Your task to perform on an android device: Open Google Chrome and open the bookmarks view Image 0: 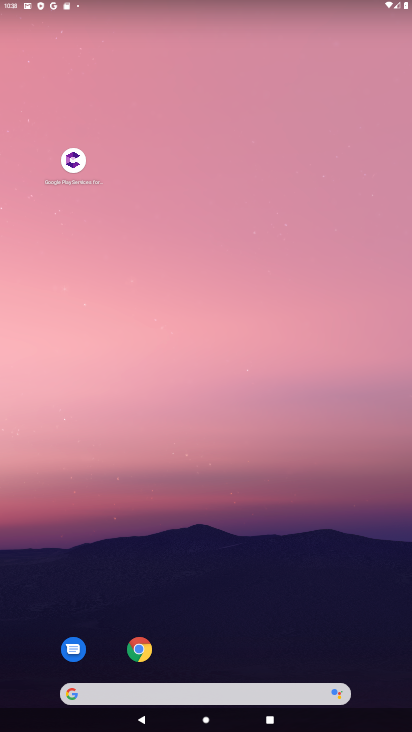
Step 0: drag from (327, 689) to (271, 249)
Your task to perform on an android device: Open Google Chrome and open the bookmarks view Image 1: 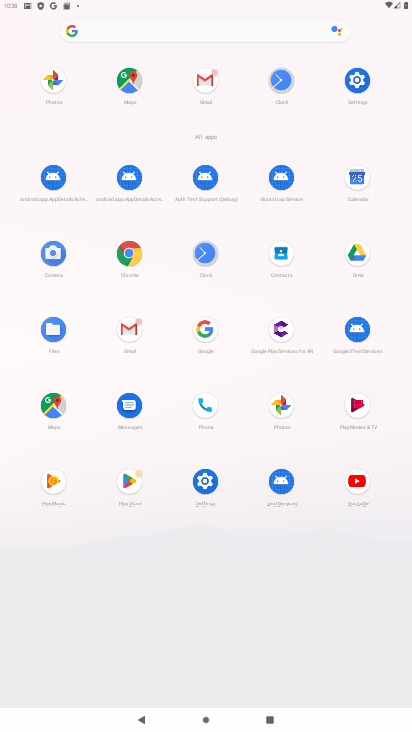
Step 1: click (127, 254)
Your task to perform on an android device: Open Google Chrome and open the bookmarks view Image 2: 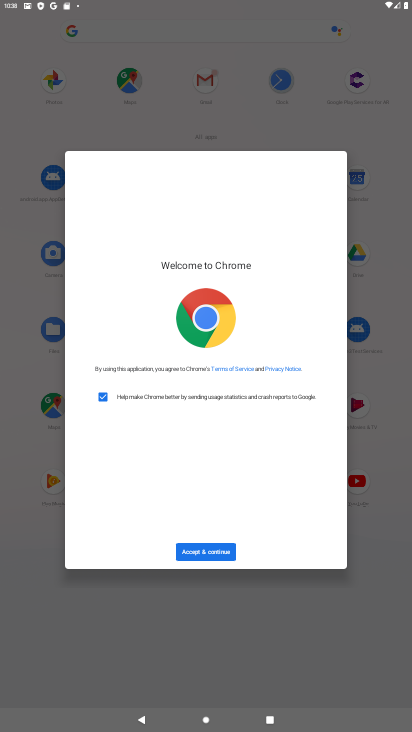
Step 2: click (235, 549)
Your task to perform on an android device: Open Google Chrome and open the bookmarks view Image 3: 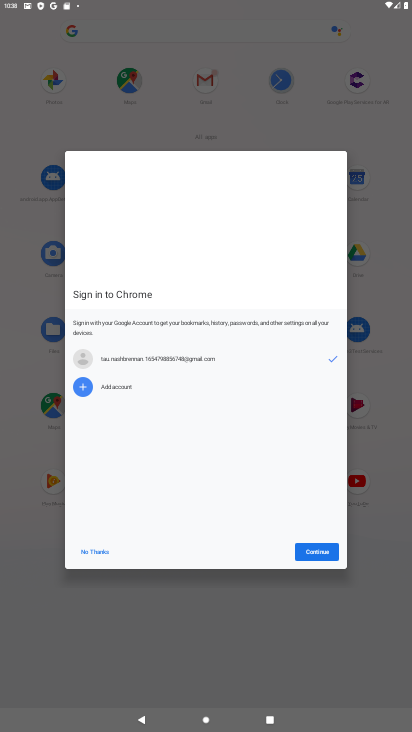
Step 3: click (86, 550)
Your task to perform on an android device: Open Google Chrome and open the bookmarks view Image 4: 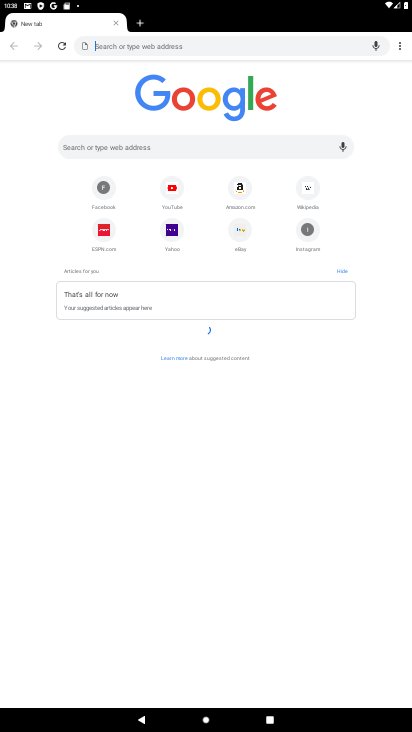
Step 4: drag from (403, 43) to (347, 116)
Your task to perform on an android device: Open Google Chrome and open the bookmarks view Image 5: 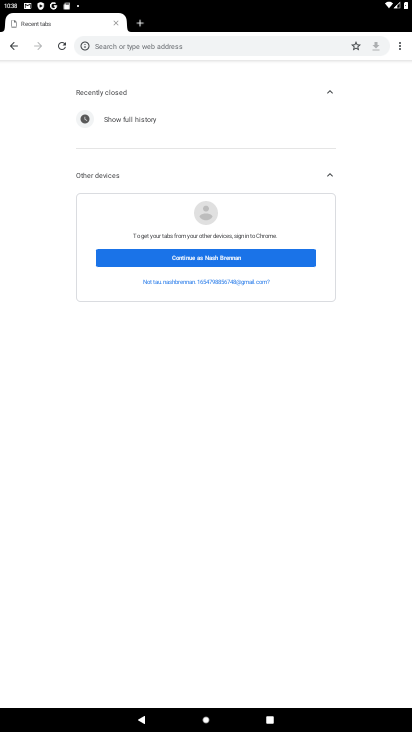
Step 5: drag from (399, 46) to (354, 132)
Your task to perform on an android device: Open Google Chrome and open the bookmarks view Image 6: 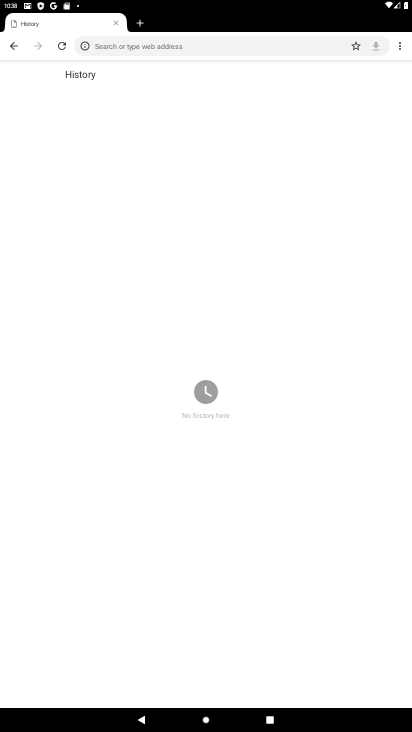
Step 6: click (398, 48)
Your task to perform on an android device: Open Google Chrome and open the bookmarks view Image 7: 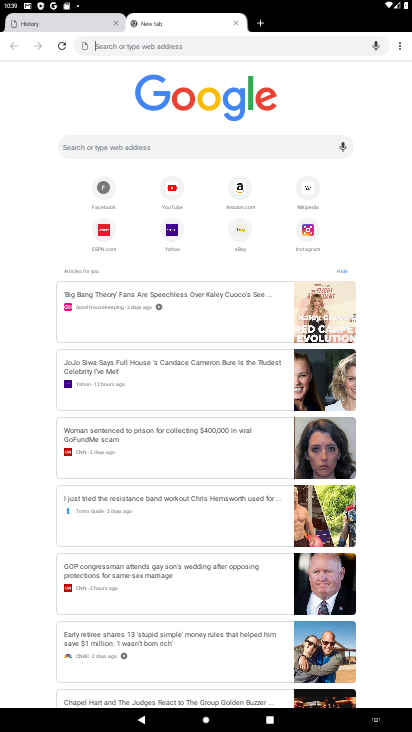
Step 7: click (399, 47)
Your task to perform on an android device: Open Google Chrome and open the bookmarks view Image 8: 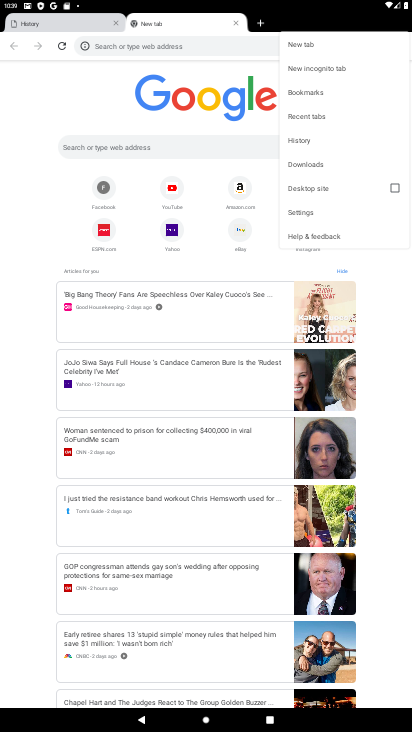
Step 8: click (333, 97)
Your task to perform on an android device: Open Google Chrome and open the bookmarks view Image 9: 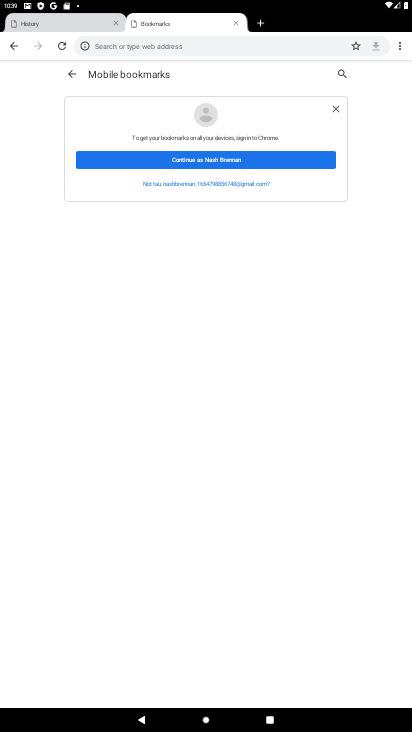
Step 9: task complete